Your task to perform on an android device: set default search engine in the chrome app Image 0: 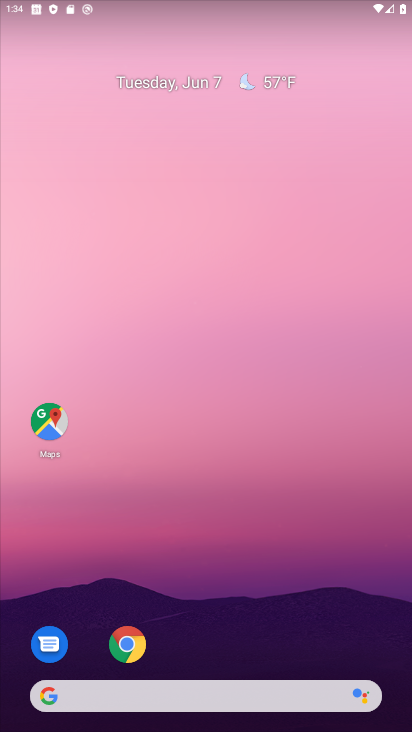
Step 0: drag from (243, 717) to (392, 562)
Your task to perform on an android device: set default search engine in the chrome app Image 1: 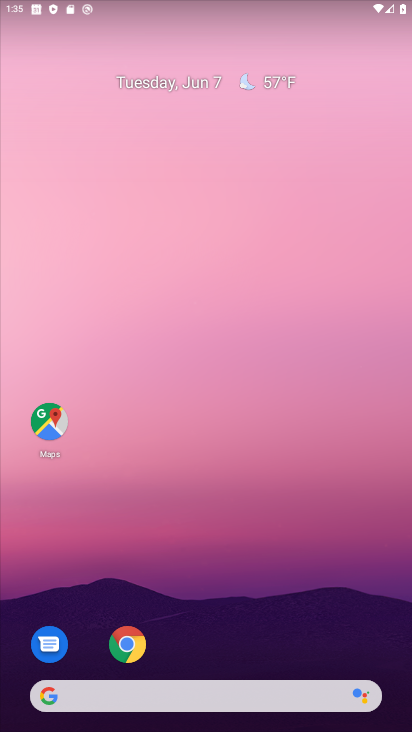
Step 1: drag from (270, 660) to (153, 56)
Your task to perform on an android device: set default search engine in the chrome app Image 2: 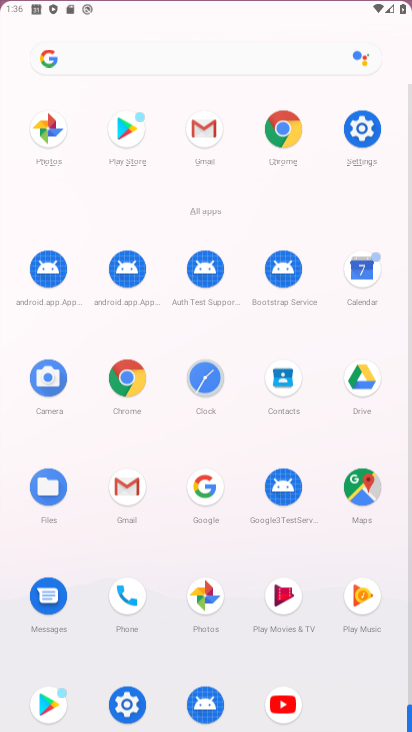
Step 2: drag from (249, 434) to (161, 21)
Your task to perform on an android device: set default search engine in the chrome app Image 3: 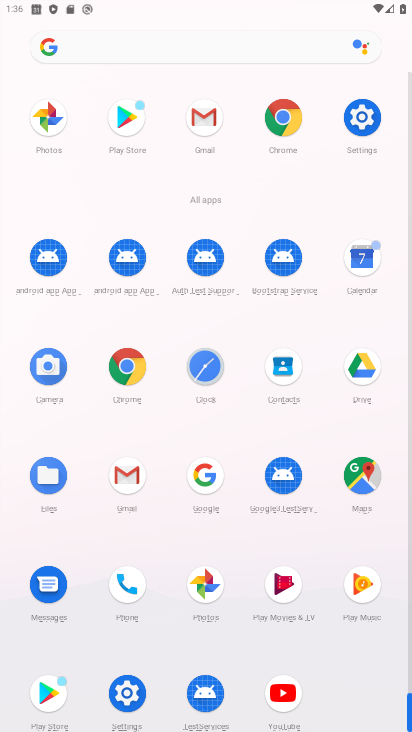
Step 3: drag from (285, 469) to (200, 116)
Your task to perform on an android device: set default search engine in the chrome app Image 4: 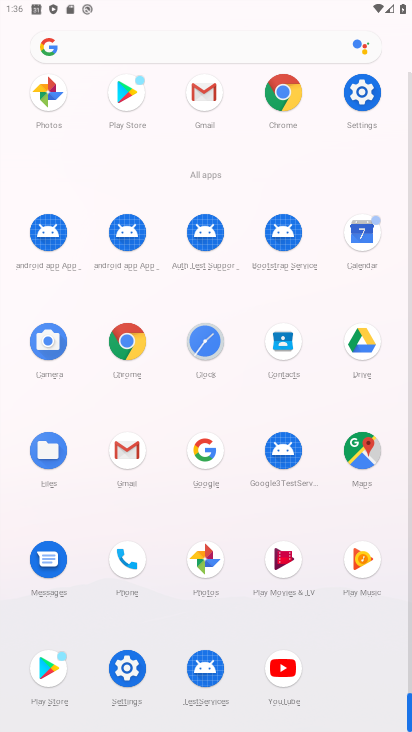
Step 4: click (124, 336)
Your task to perform on an android device: set default search engine in the chrome app Image 5: 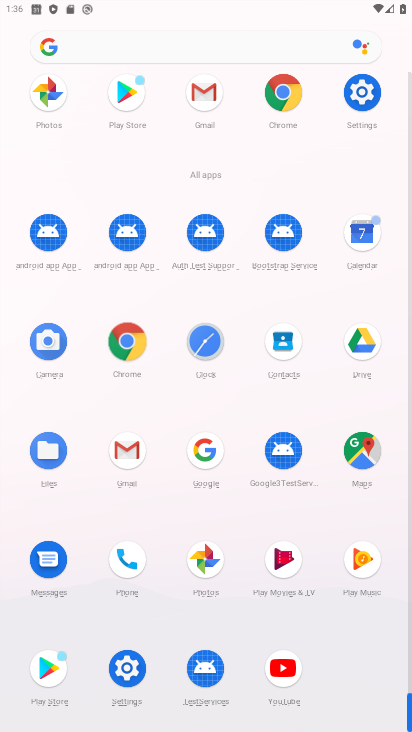
Step 5: click (119, 341)
Your task to perform on an android device: set default search engine in the chrome app Image 6: 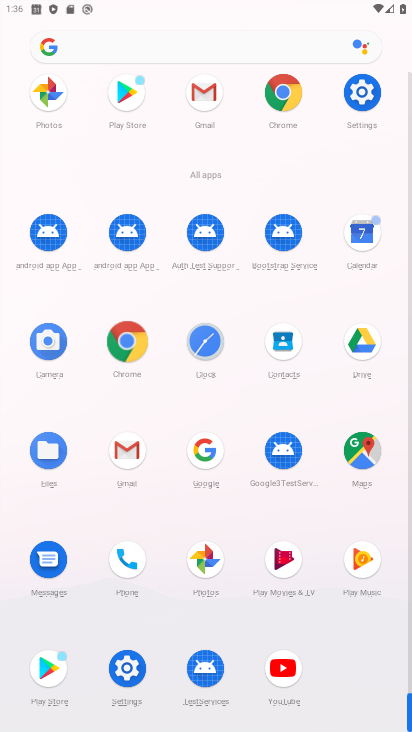
Step 6: click (120, 342)
Your task to perform on an android device: set default search engine in the chrome app Image 7: 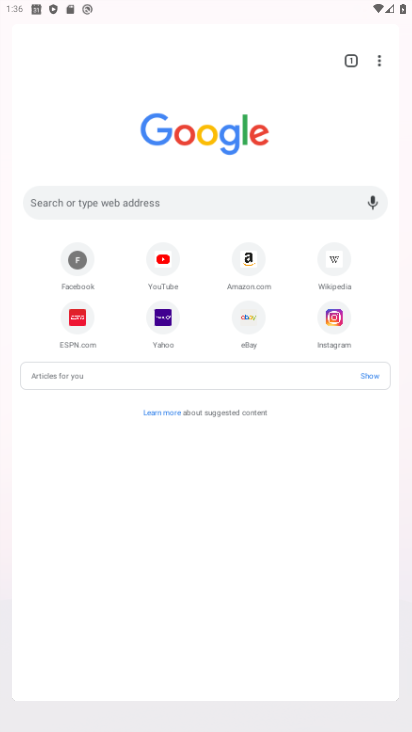
Step 7: click (125, 336)
Your task to perform on an android device: set default search engine in the chrome app Image 8: 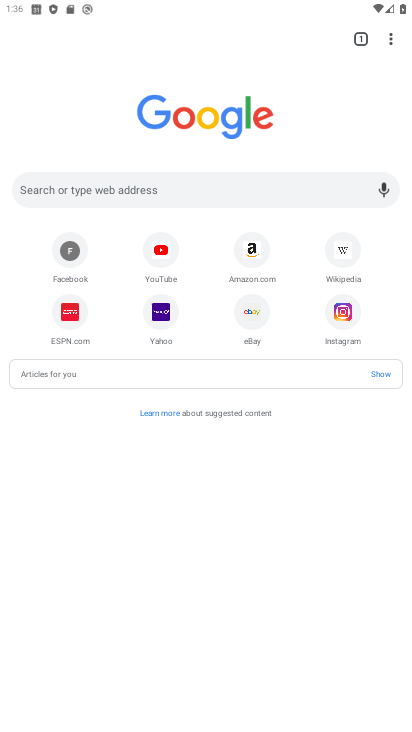
Step 8: click (132, 351)
Your task to perform on an android device: set default search engine in the chrome app Image 9: 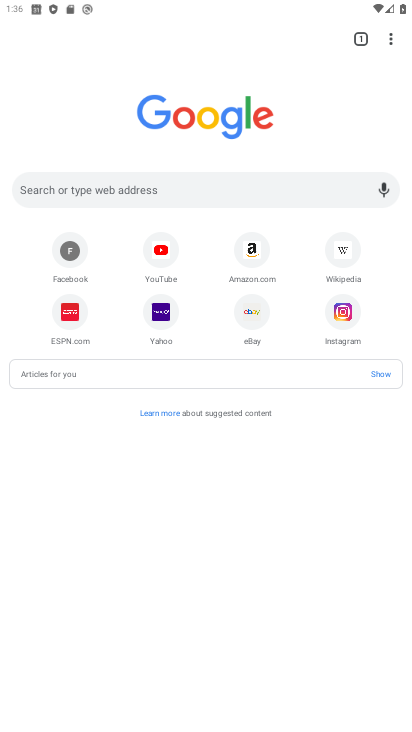
Step 9: click (134, 352)
Your task to perform on an android device: set default search engine in the chrome app Image 10: 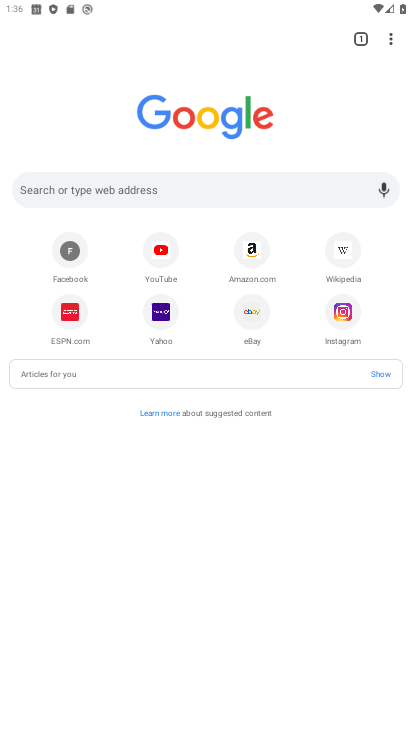
Step 10: click (140, 356)
Your task to perform on an android device: set default search engine in the chrome app Image 11: 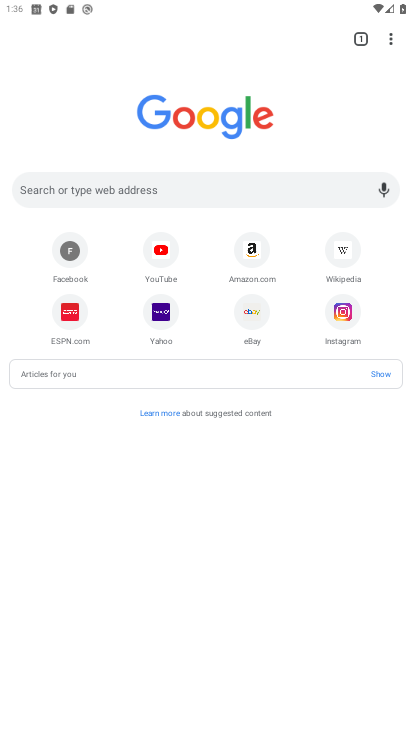
Step 11: drag from (392, 41) to (236, 336)
Your task to perform on an android device: set default search engine in the chrome app Image 12: 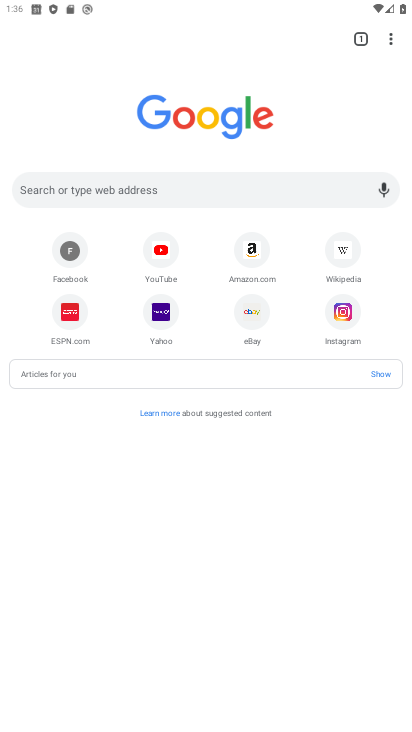
Step 12: click (236, 333)
Your task to perform on an android device: set default search engine in the chrome app Image 13: 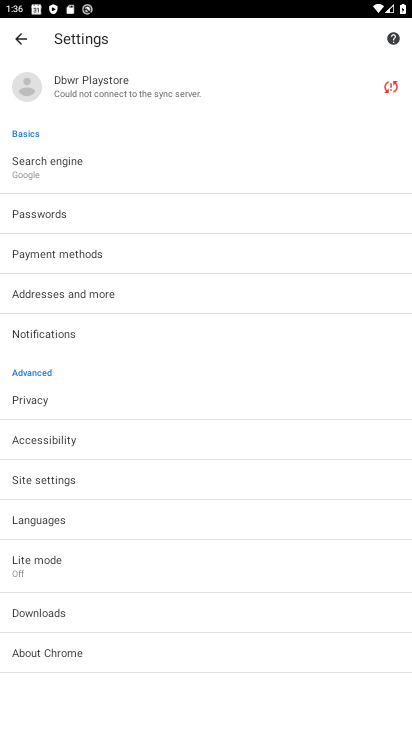
Step 13: click (30, 163)
Your task to perform on an android device: set default search engine in the chrome app Image 14: 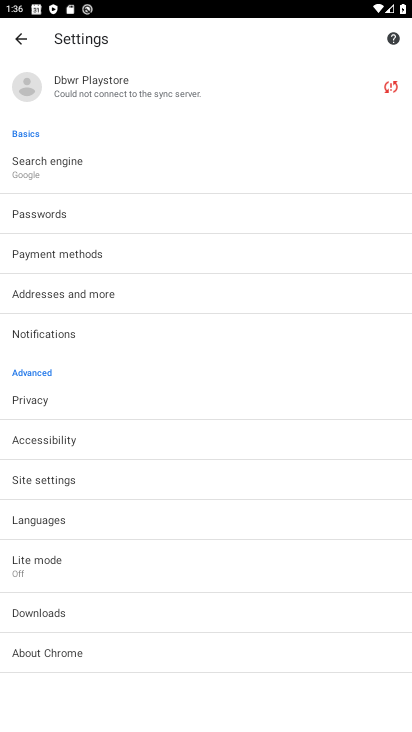
Step 14: click (30, 163)
Your task to perform on an android device: set default search engine in the chrome app Image 15: 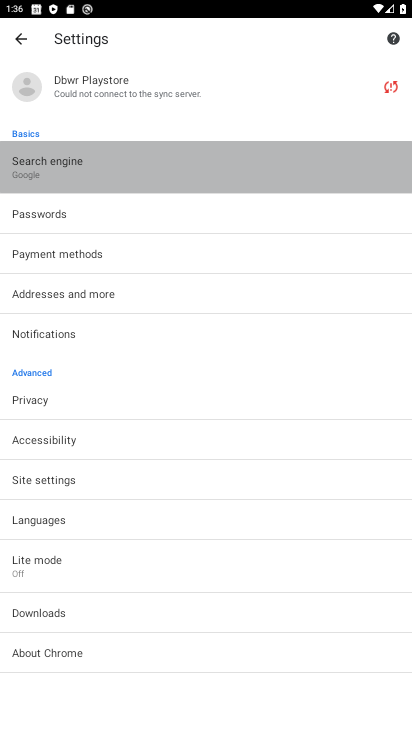
Step 15: click (30, 163)
Your task to perform on an android device: set default search engine in the chrome app Image 16: 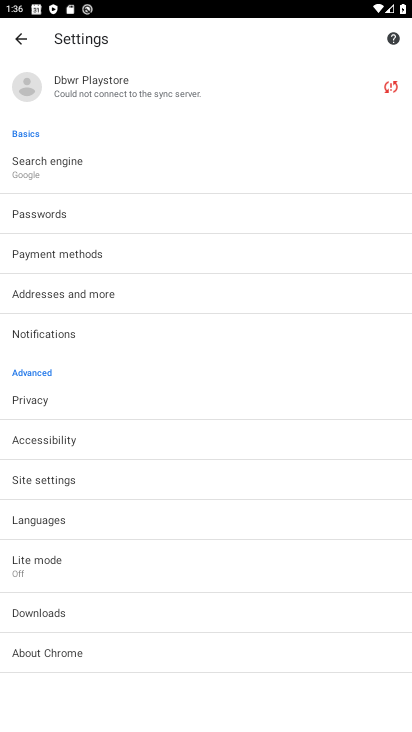
Step 16: click (30, 163)
Your task to perform on an android device: set default search engine in the chrome app Image 17: 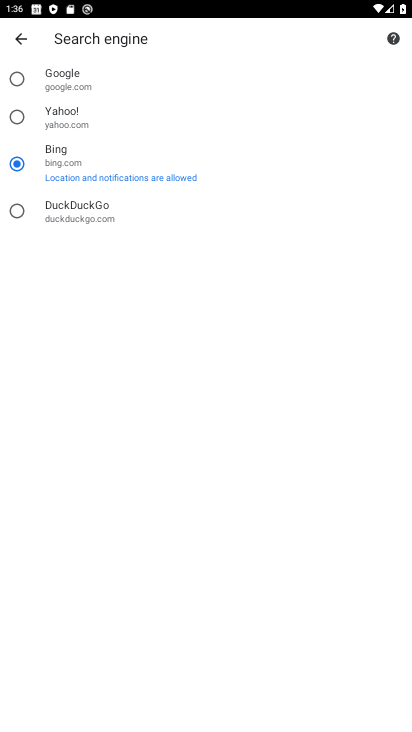
Step 17: task complete